Your task to perform on an android device: open app "Pluto TV - Live TV and Movies" (install if not already installed) Image 0: 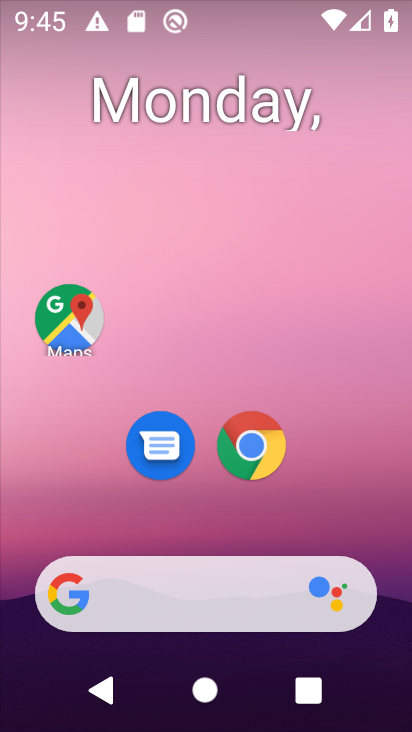
Step 0: drag from (409, 583) to (266, 118)
Your task to perform on an android device: open app "Pluto TV - Live TV and Movies" (install if not already installed) Image 1: 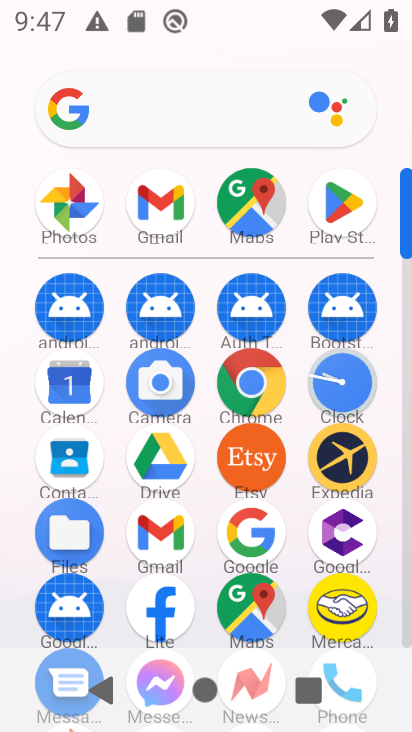
Step 1: click (337, 198)
Your task to perform on an android device: open app "Pluto TV - Live TV and Movies" (install if not already installed) Image 2: 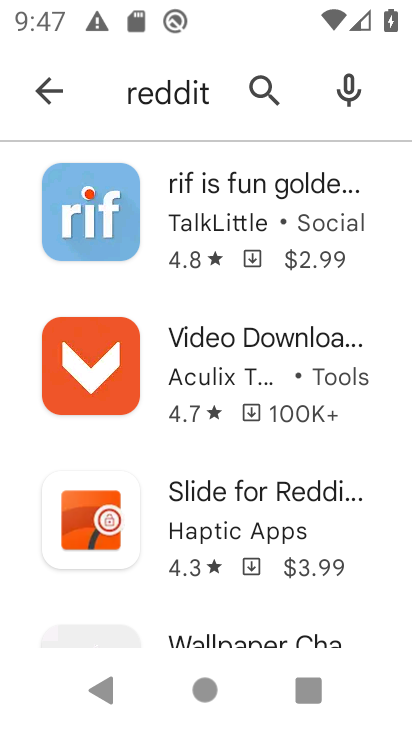
Step 2: press back button
Your task to perform on an android device: open app "Pluto TV - Live TV and Movies" (install if not already installed) Image 3: 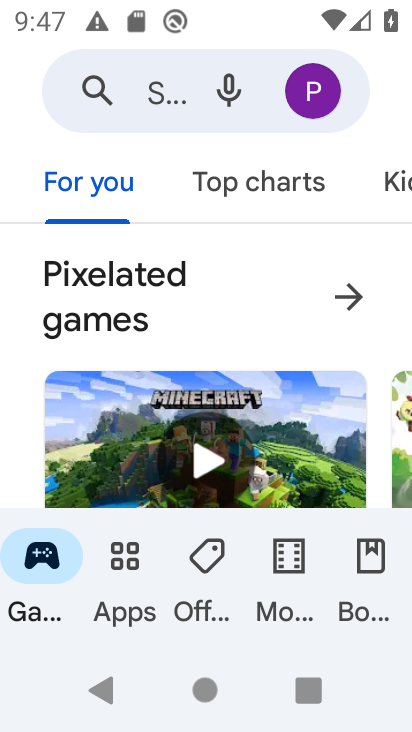
Step 3: click (138, 94)
Your task to perform on an android device: open app "Pluto TV - Live TV and Movies" (install if not already installed) Image 4: 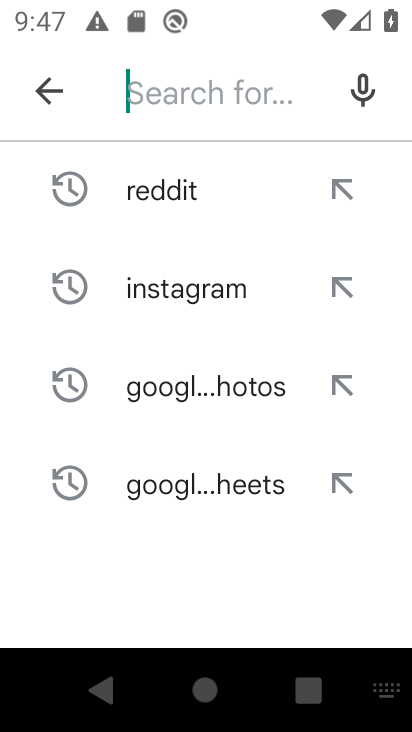
Step 4: type "Pluto TV - Live TV and Movies"
Your task to perform on an android device: open app "Pluto TV - Live TV and Movies" (install if not already installed) Image 5: 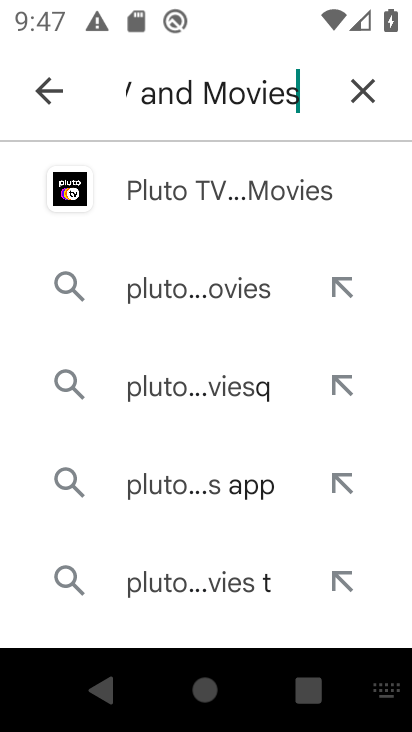
Step 5: click (145, 186)
Your task to perform on an android device: open app "Pluto TV - Live TV and Movies" (install if not already installed) Image 6: 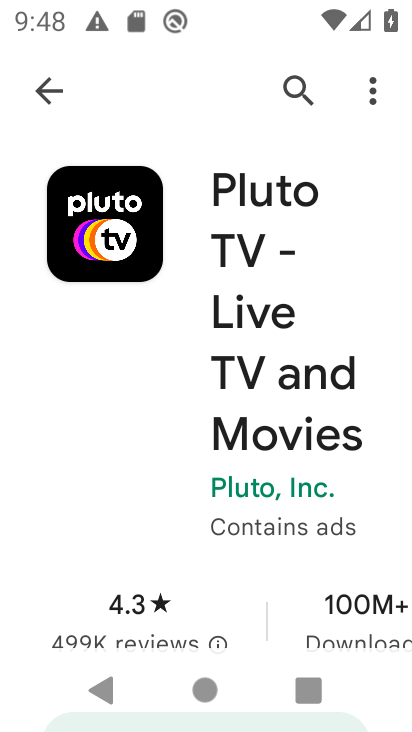
Step 6: task complete